Your task to perform on an android device: turn off location Image 0: 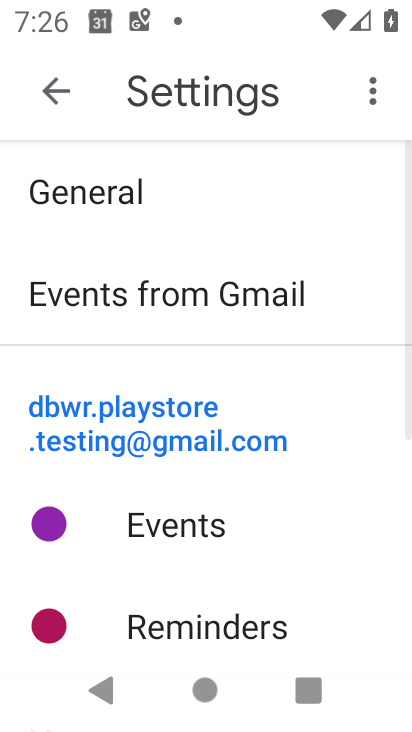
Step 0: press home button
Your task to perform on an android device: turn off location Image 1: 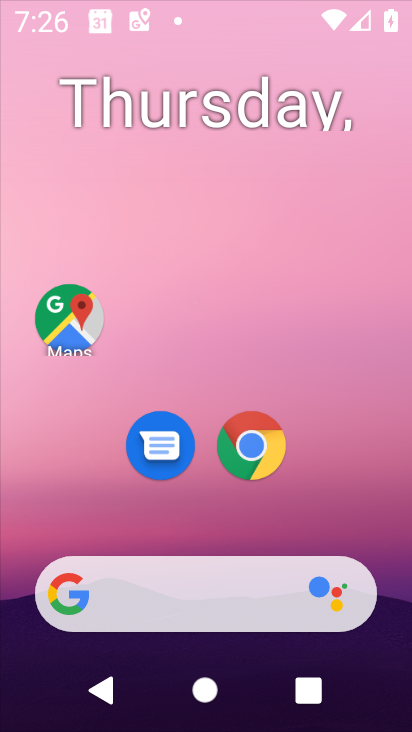
Step 1: drag from (389, 632) to (272, 79)
Your task to perform on an android device: turn off location Image 2: 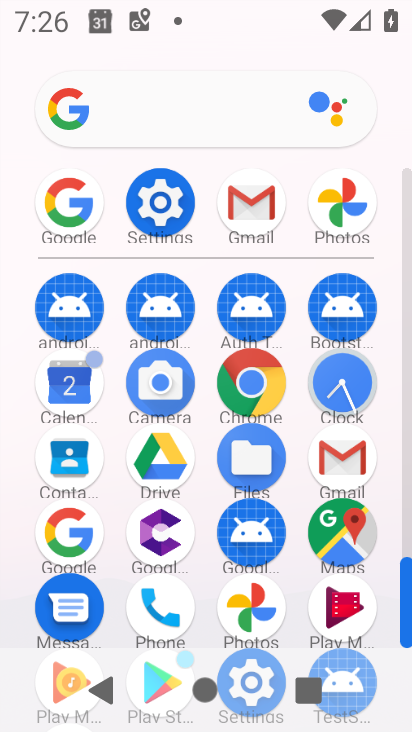
Step 2: click (164, 174)
Your task to perform on an android device: turn off location Image 3: 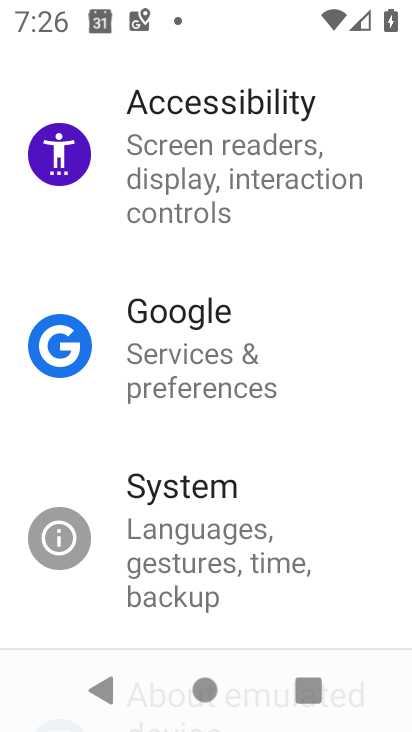
Step 3: drag from (167, 178) to (225, 629)
Your task to perform on an android device: turn off location Image 4: 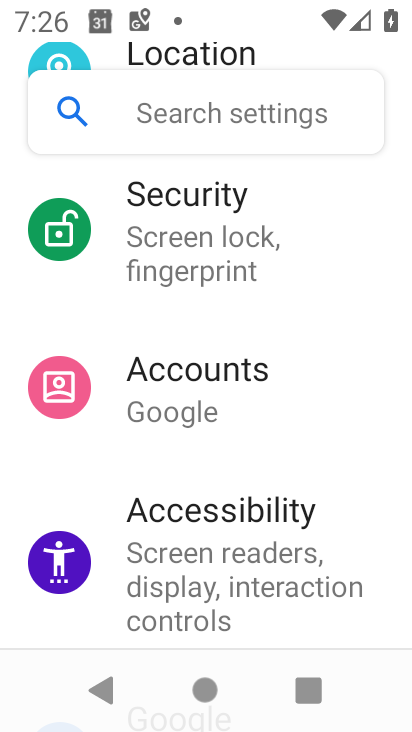
Step 4: drag from (203, 209) to (201, 656)
Your task to perform on an android device: turn off location Image 5: 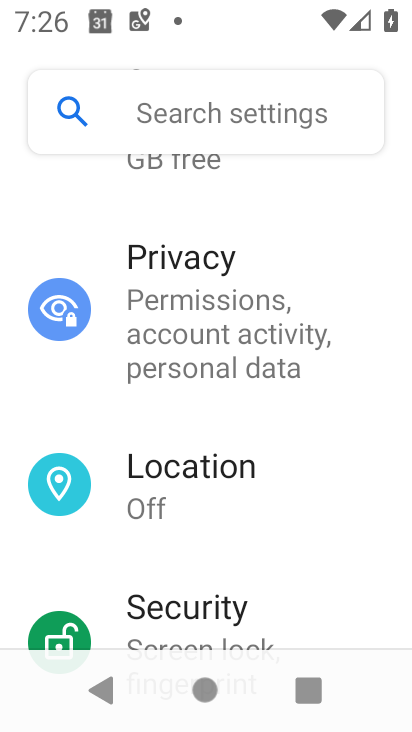
Step 5: click (189, 475)
Your task to perform on an android device: turn off location Image 6: 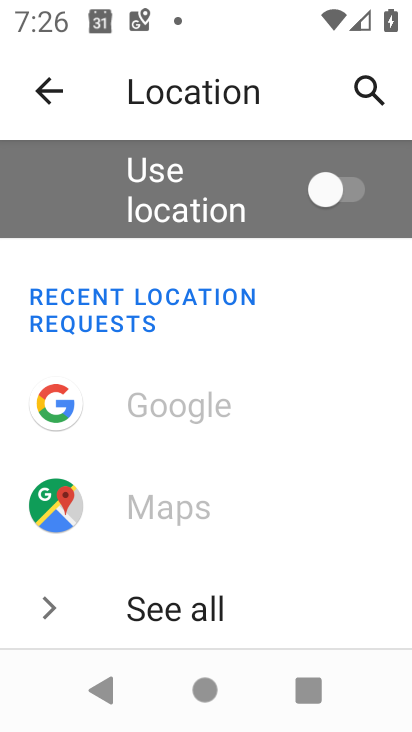
Step 6: task complete